Your task to perform on an android device: Open wifi settings Image 0: 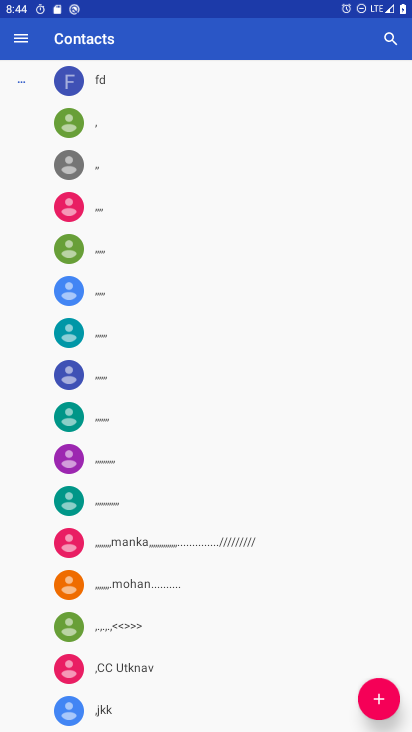
Step 0: press home button
Your task to perform on an android device: Open wifi settings Image 1: 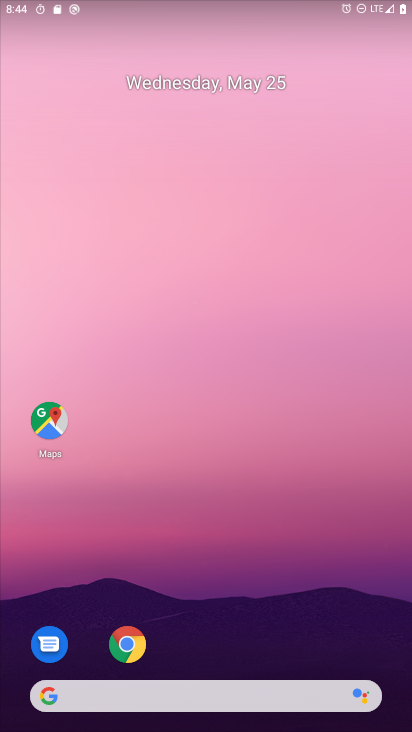
Step 1: drag from (360, 646) to (290, 131)
Your task to perform on an android device: Open wifi settings Image 2: 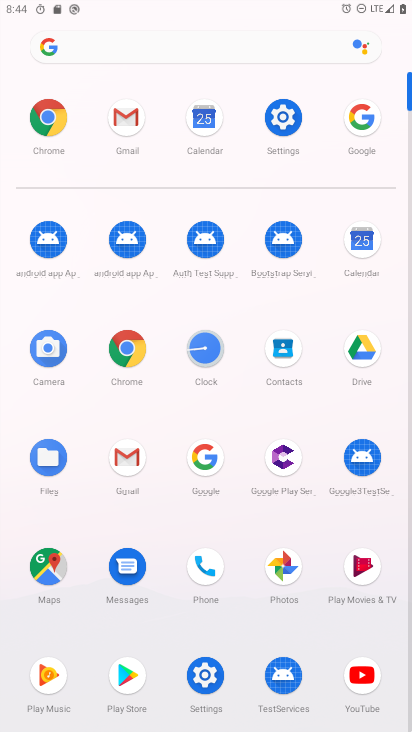
Step 2: click (297, 129)
Your task to perform on an android device: Open wifi settings Image 3: 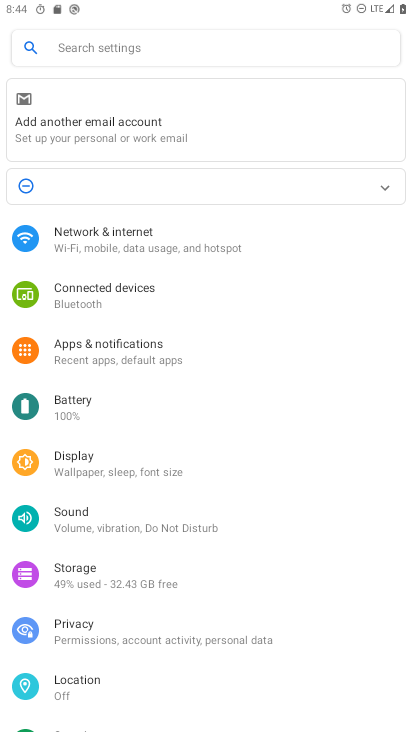
Step 3: click (155, 255)
Your task to perform on an android device: Open wifi settings Image 4: 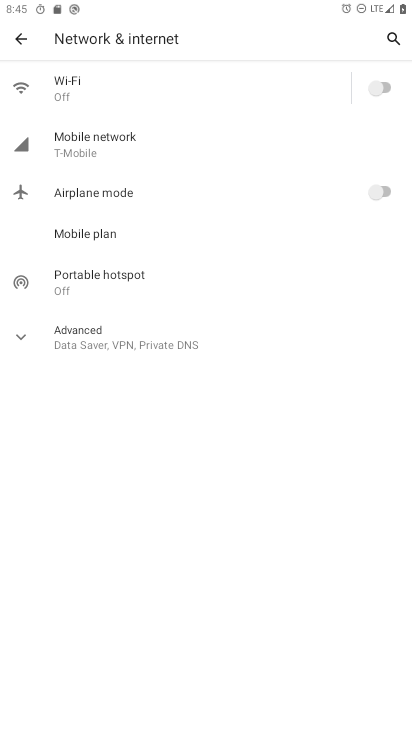
Step 4: click (163, 86)
Your task to perform on an android device: Open wifi settings Image 5: 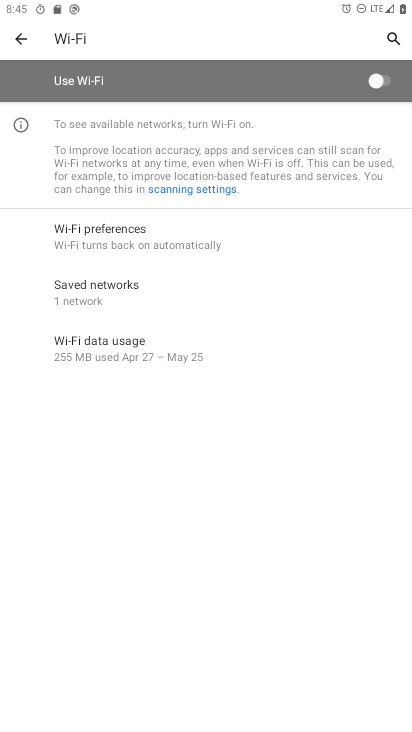
Step 5: task complete